Your task to perform on an android device: turn off sleep mode Image 0: 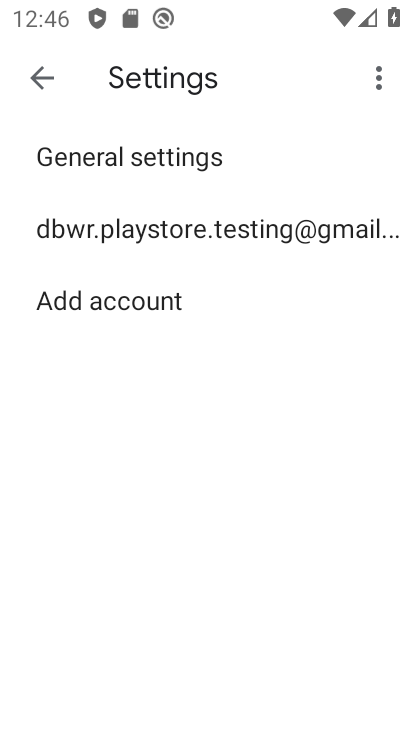
Step 0: press home button
Your task to perform on an android device: turn off sleep mode Image 1: 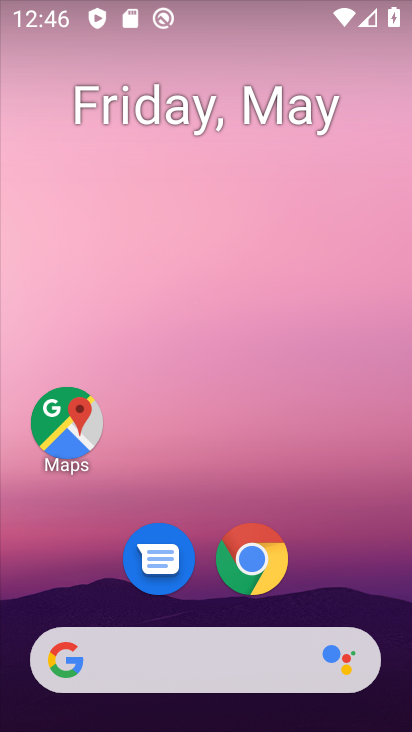
Step 1: drag from (369, 573) to (322, 161)
Your task to perform on an android device: turn off sleep mode Image 2: 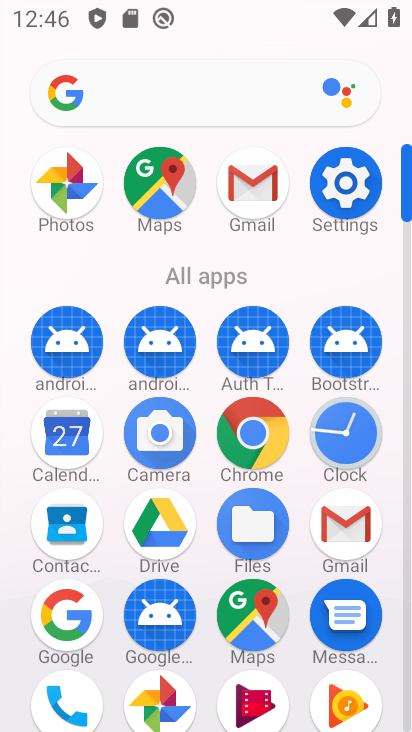
Step 2: click (361, 158)
Your task to perform on an android device: turn off sleep mode Image 3: 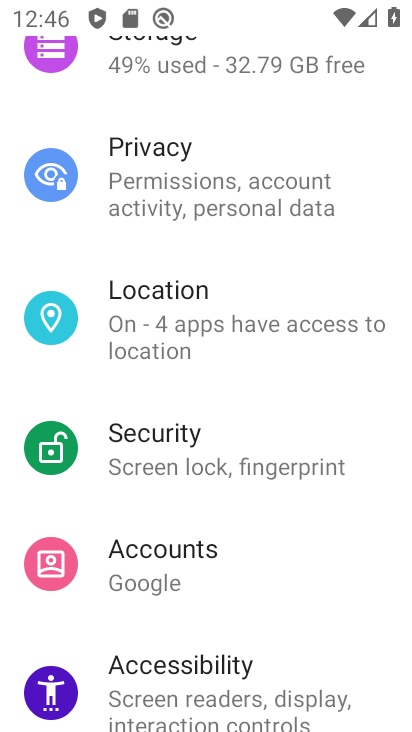
Step 3: drag from (228, 142) to (235, 622)
Your task to perform on an android device: turn off sleep mode Image 4: 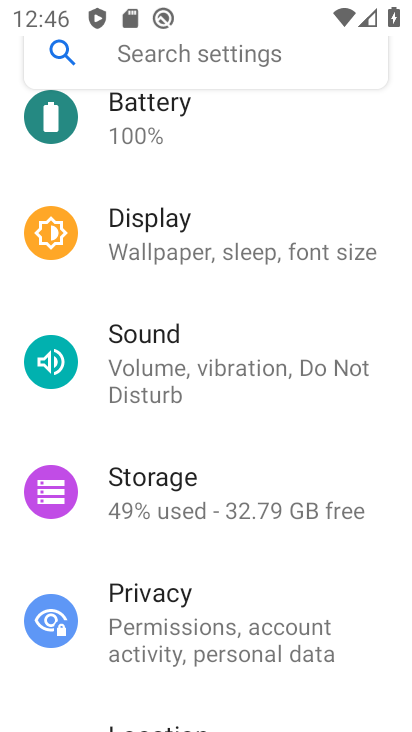
Step 4: drag from (249, 255) to (285, 585)
Your task to perform on an android device: turn off sleep mode Image 5: 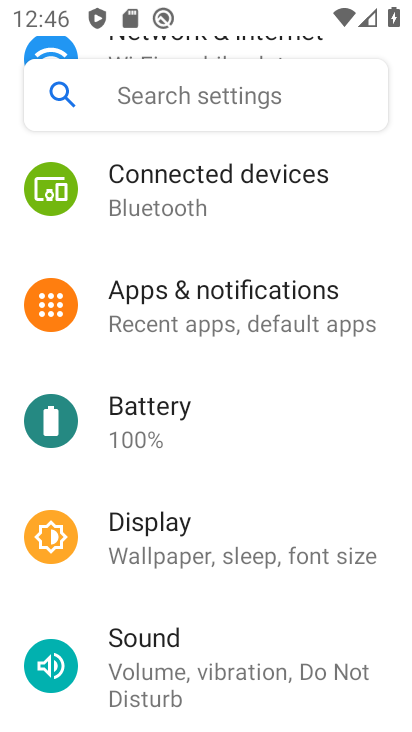
Step 5: click (250, 104)
Your task to perform on an android device: turn off sleep mode Image 6: 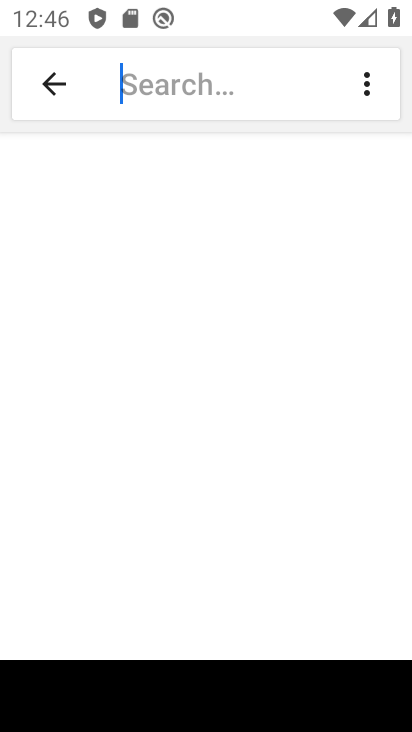
Step 6: type "sleep mode"
Your task to perform on an android device: turn off sleep mode Image 7: 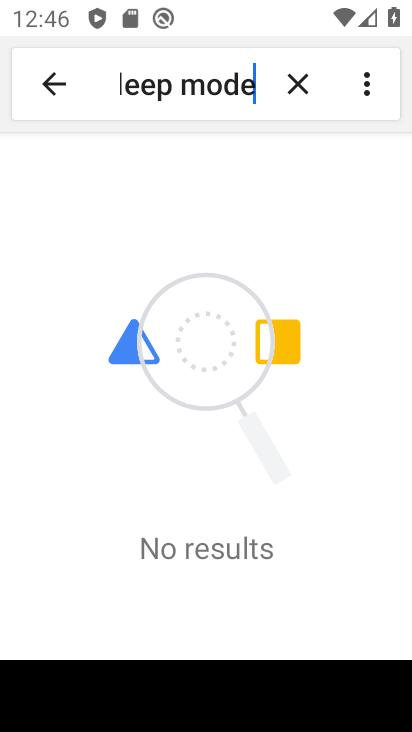
Step 7: task complete